Your task to perform on an android device: Open calendar and show me the second week of next month Image 0: 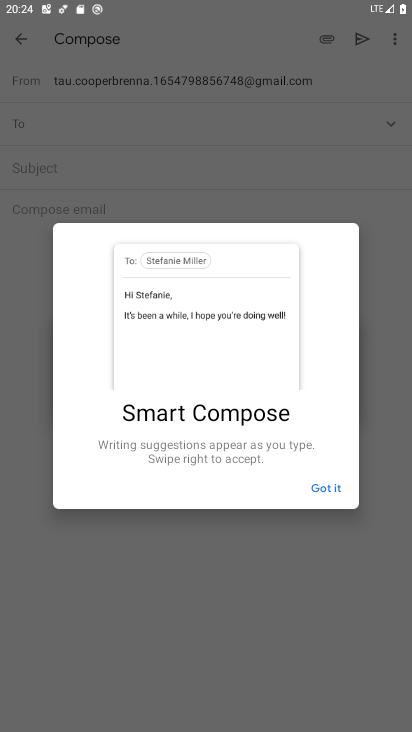
Step 0: click (336, 480)
Your task to perform on an android device: Open calendar and show me the second week of next month Image 1: 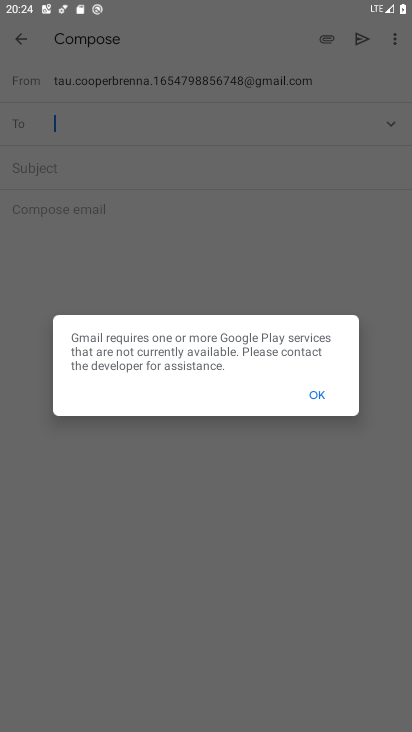
Step 1: press home button
Your task to perform on an android device: Open calendar and show me the second week of next month Image 2: 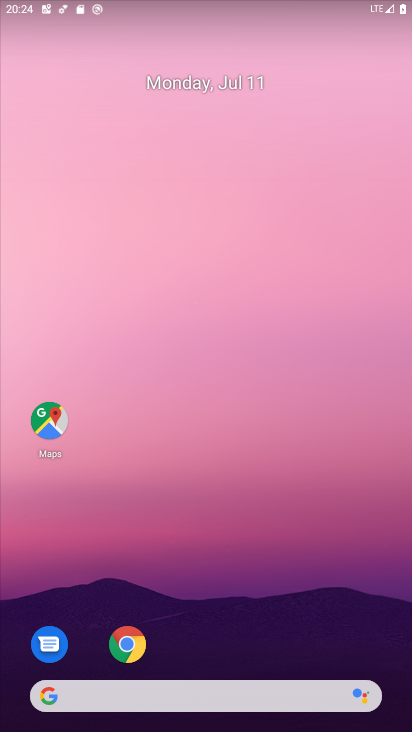
Step 2: drag from (190, 634) to (219, 117)
Your task to perform on an android device: Open calendar and show me the second week of next month Image 3: 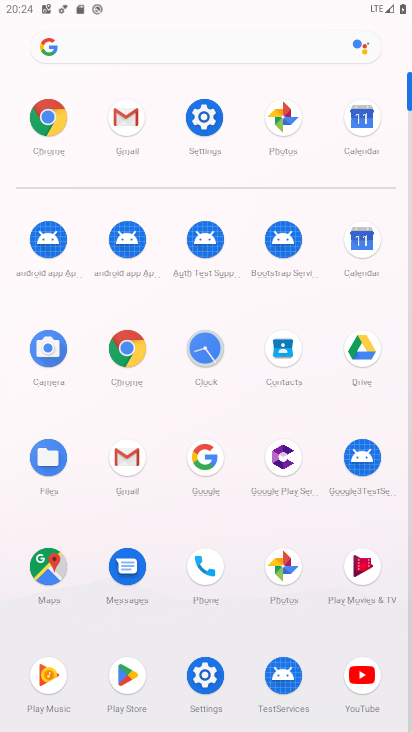
Step 3: click (368, 233)
Your task to perform on an android device: Open calendar and show me the second week of next month Image 4: 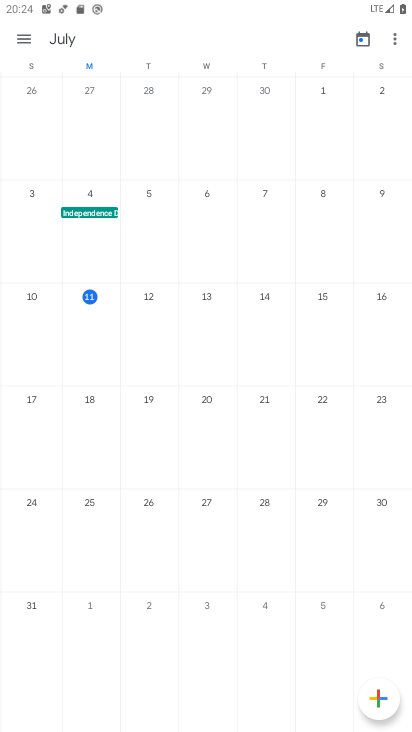
Step 4: click (19, 30)
Your task to perform on an android device: Open calendar and show me the second week of next month Image 5: 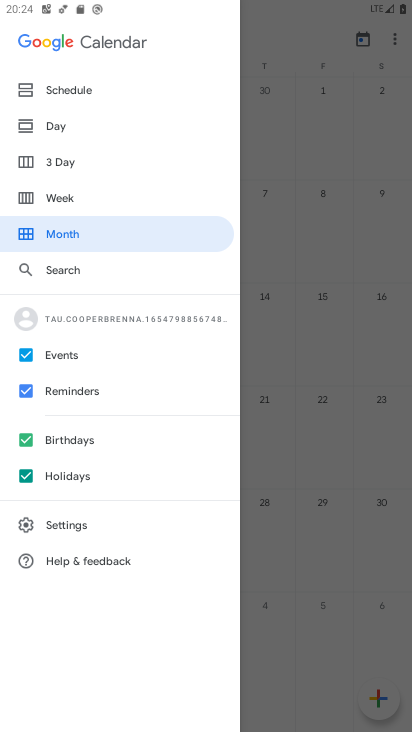
Step 5: click (72, 227)
Your task to perform on an android device: Open calendar and show me the second week of next month Image 6: 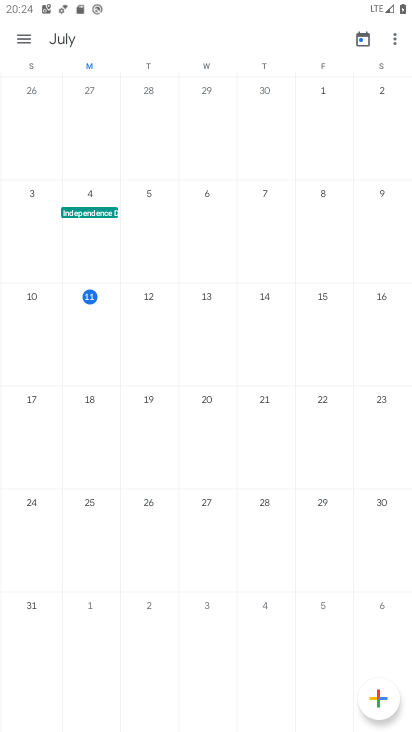
Step 6: drag from (308, 503) to (33, 342)
Your task to perform on an android device: Open calendar and show me the second week of next month Image 7: 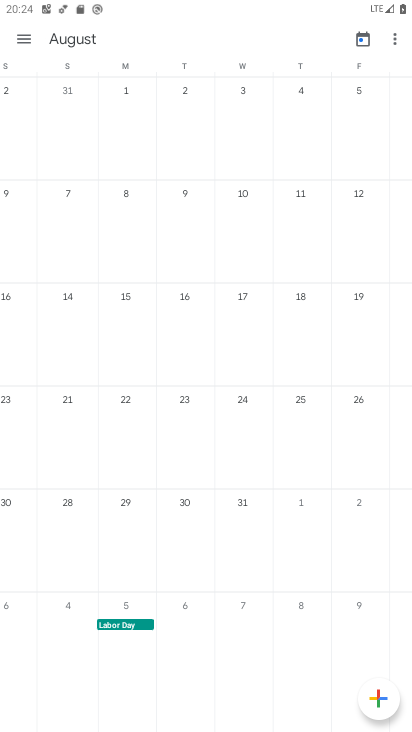
Step 7: click (113, 232)
Your task to perform on an android device: Open calendar and show me the second week of next month Image 8: 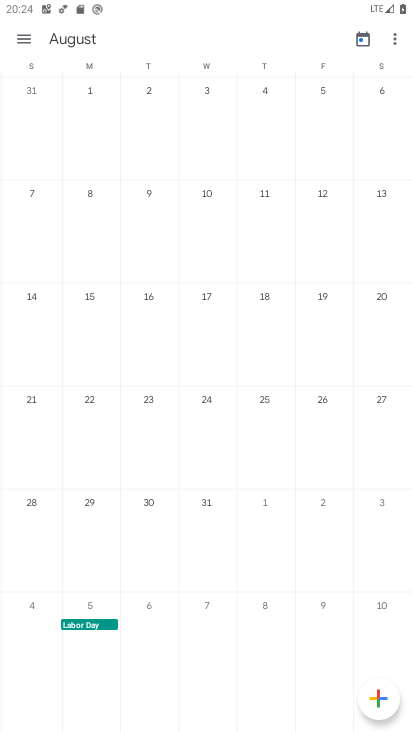
Step 8: drag from (348, 181) to (159, 204)
Your task to perform on an android device: Open calendar and show me the second week of next month Image 9: 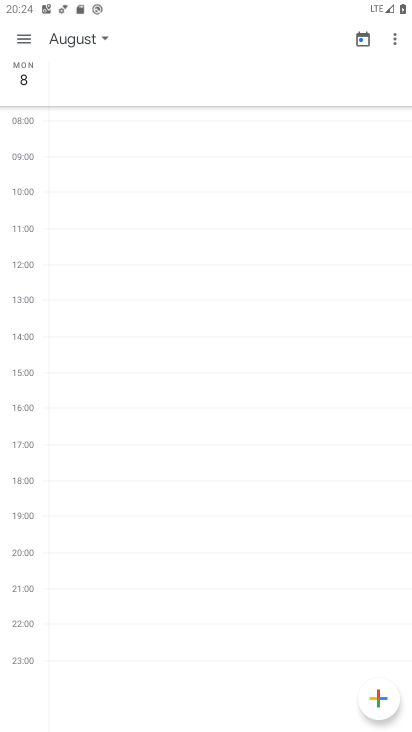
Step 9: drag from (383, 146) to (9, 289)
Your task to perform on an android device: Open calendar and show me the second week of next month Image 10: 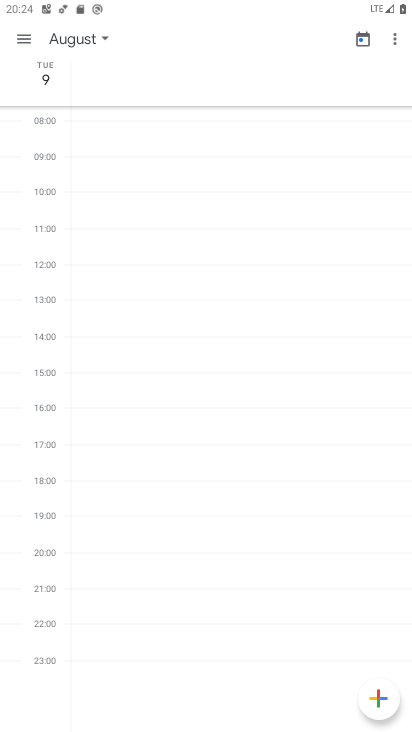
Step 10: drag from (4, 223) to (308, 291)
Your task to perform on an android device: Open calendar and show me the second week of next month Image 11: 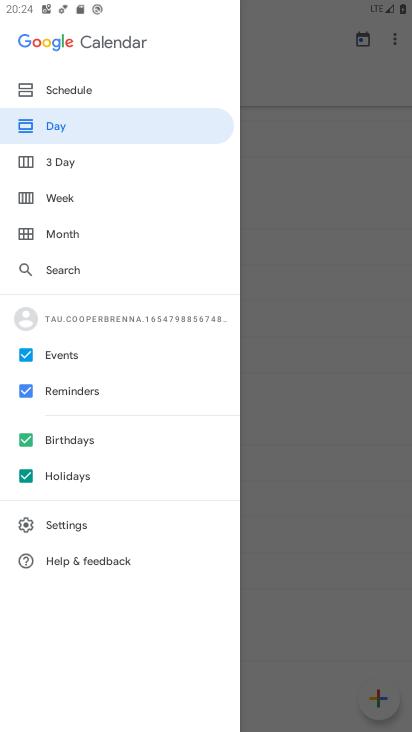
Step 11: click (19, 35)
Your task to perform on an android device: Open calendar and show me the second week of next month Image 12: 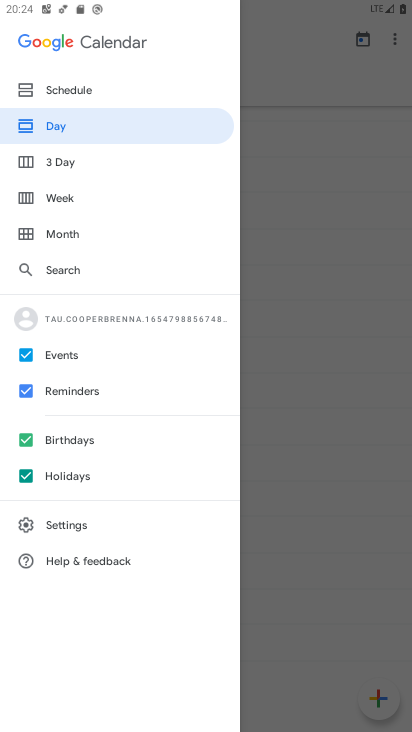
Step 12: click (75, 238)
Your task to perform on an android device: Open calendar and show me the second week of next month Image 13: 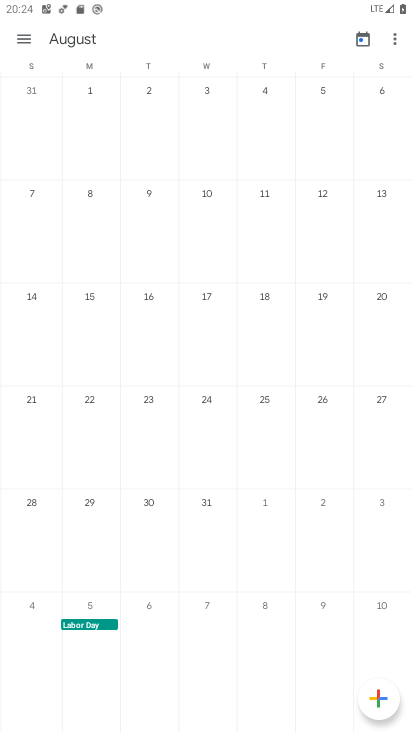
Step 13: task complete